Your task to perform on an android device: uninstall "Flipkart Online Shopping App" Image 0: 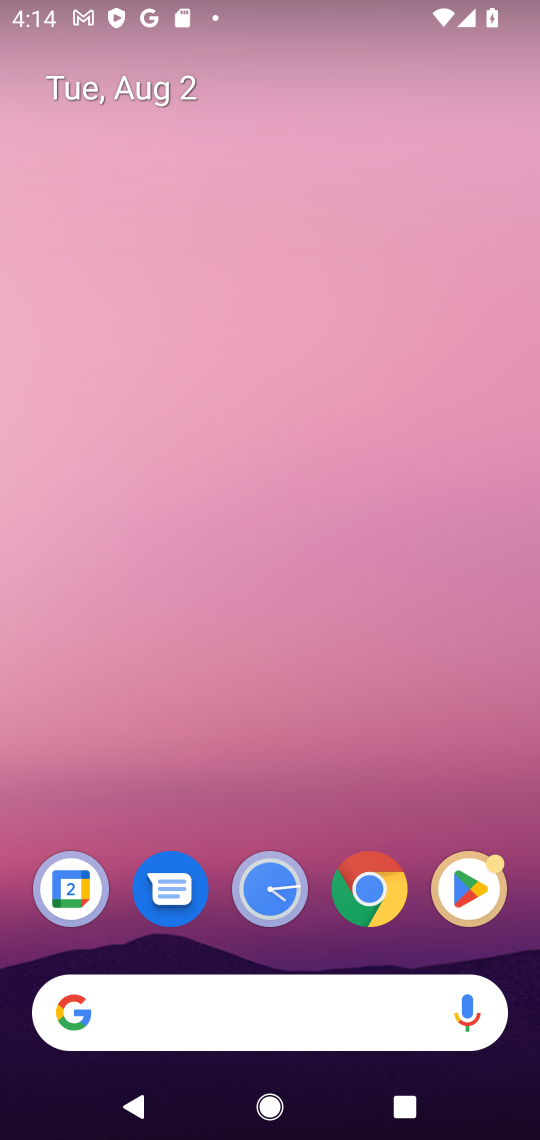
Step 0: click (476, 871)
Your task to perform on an android device: uninstall "Flipkart Online Shopping App" Image 1: 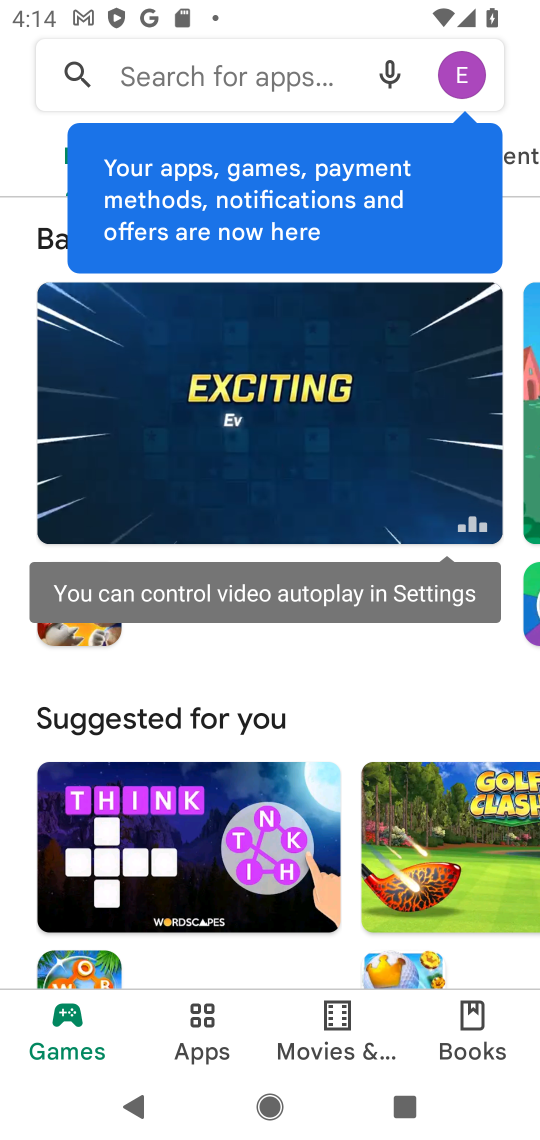
Step 1: click (307, 90)
Your task to perform on an android device: uninstall "Flipkart Online Shopping App" Image 2: 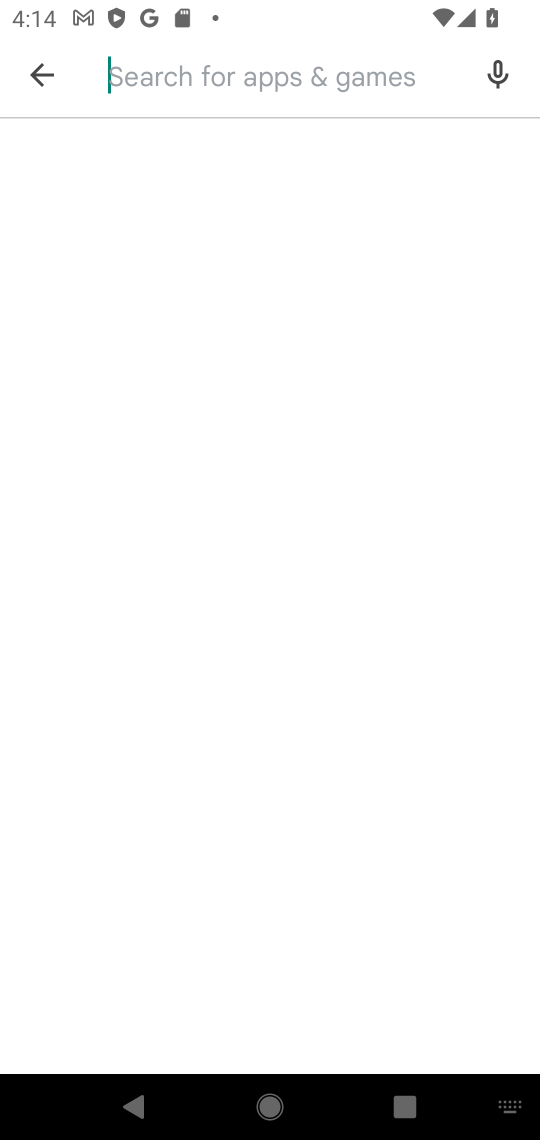
Step 2: type "flipkart online"
Your task to perform on an android device: uninstall "Flipkart Online Shopping App" Image 3: 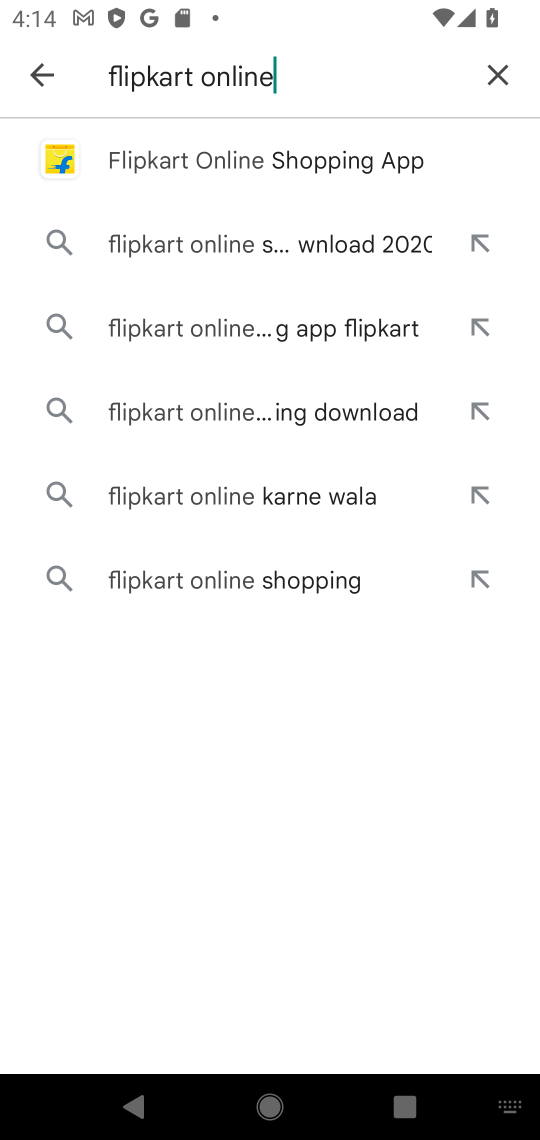
Step 3: click (359, 138)
Your task to perform on an android device: uninstall "Flipkart Online Shopping App" Image 4: 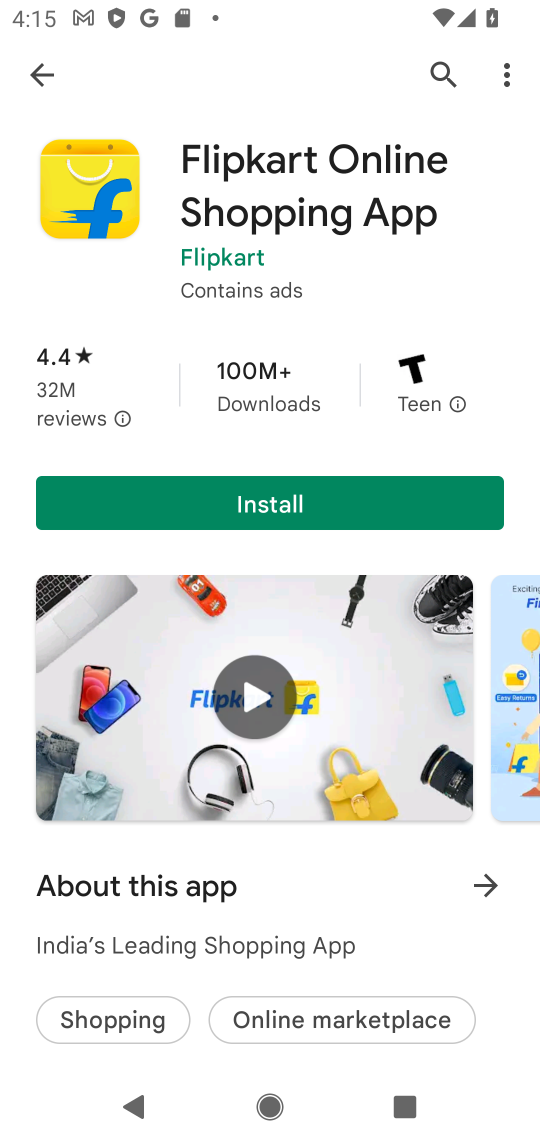
Step 4: task complete